Your task to perform on an android device: move an email to a new category in the gmail app Image 0: 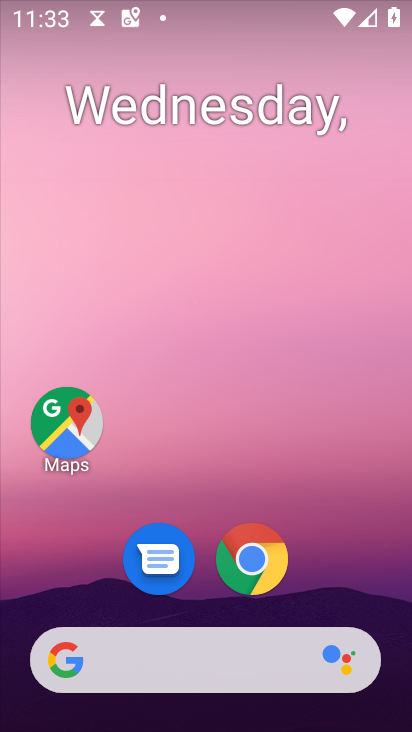
Step 0: click (230, 134)
Your task to perform on an android device: move an email to a new category in the gmail app Image 1: 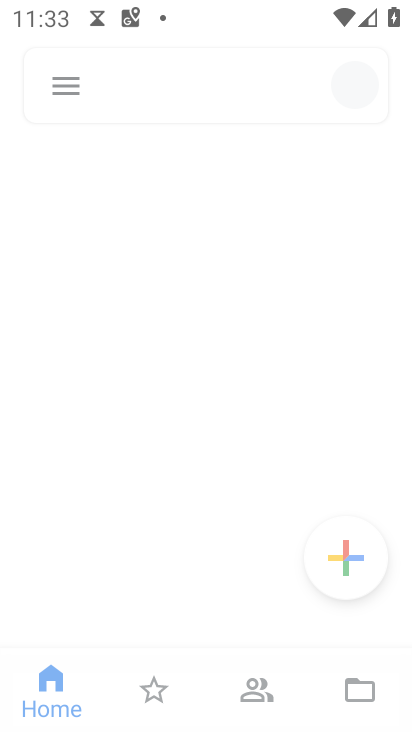
Step 1: press home button
Your task to perform on an android device: move an email to a new category in the gmail app Image 2: 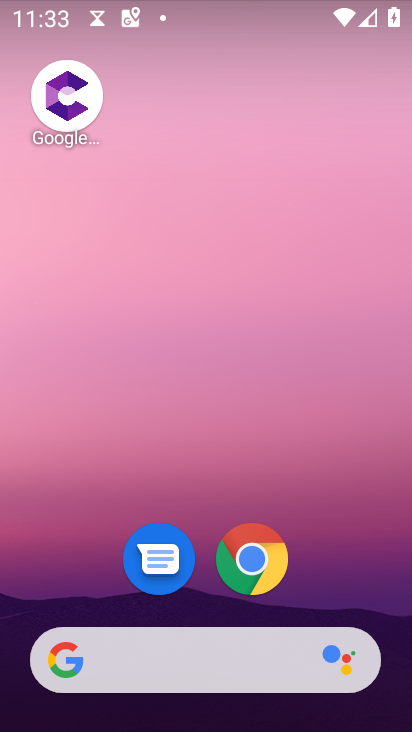
Step 2: drag from (378, 585) to (253, 98)
Your task to perform on an android device: move an email to a new category in the gmail app Image 3: 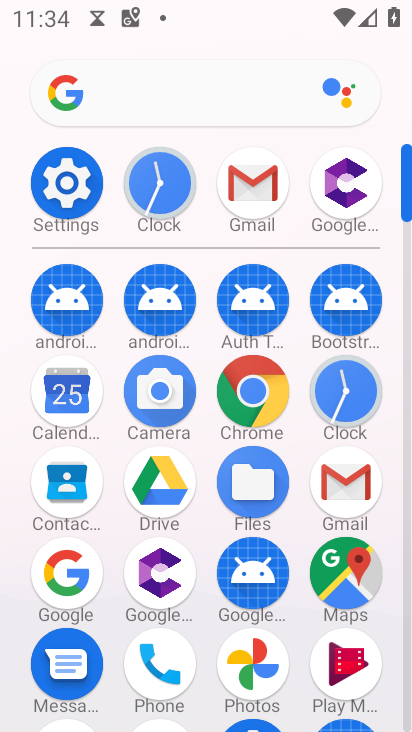
Step 3: click (348, 491)
Your task to perform on an android device: move an email to a new category in the gmail app Image 4: 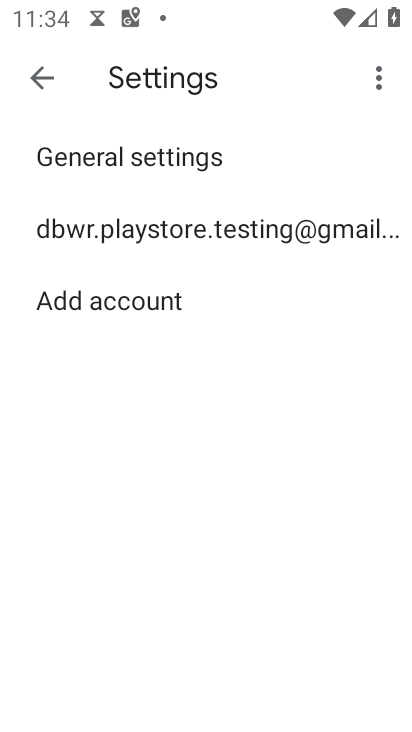
Step 4: click (42, 85)
Your task to perform on an android device: move an email to a new category in the gmail app Image 5: 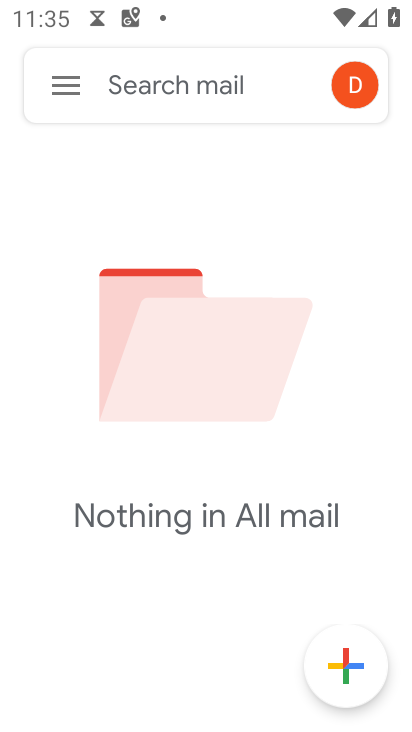
Step 5: task complete